Your task to perform on an android device: Go to display settings Image 0: 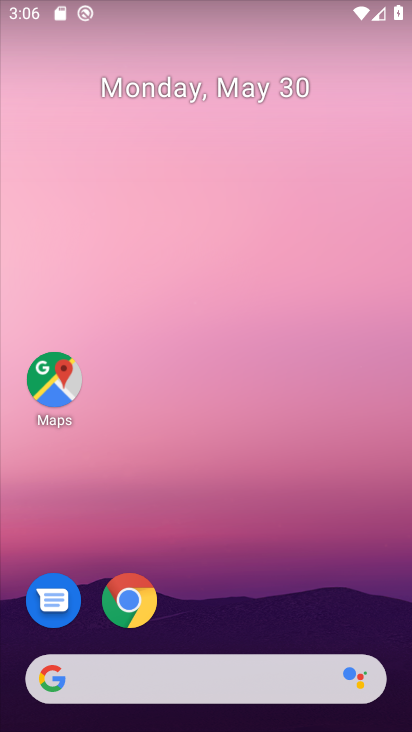
Step 0: drag from (228, 610) to (198, 148)
Your task to perform on an android device: Go to display settings Image 1: 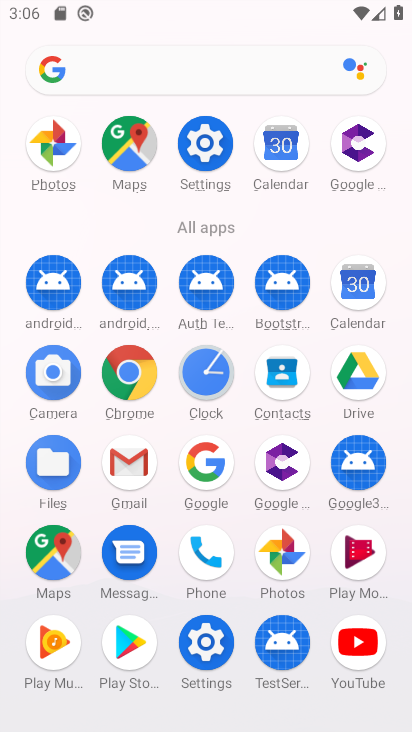
Step 1: click (217, 169)
Your task to perform on an android device: Go to display settings Image 2: 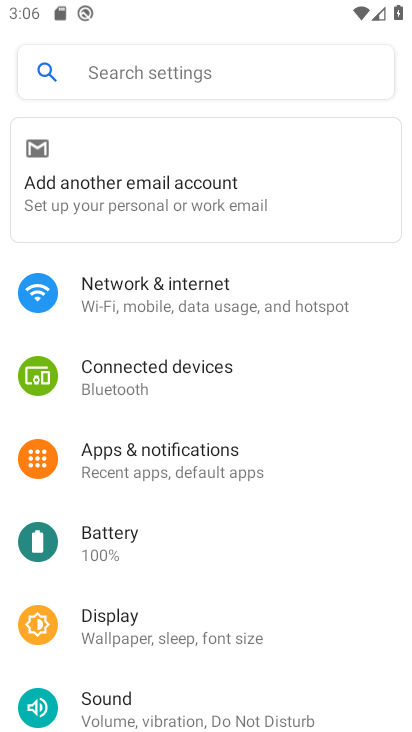
Step 2: click (160, 640)
Your task to perform on an android device: Go to display settings Image 3: 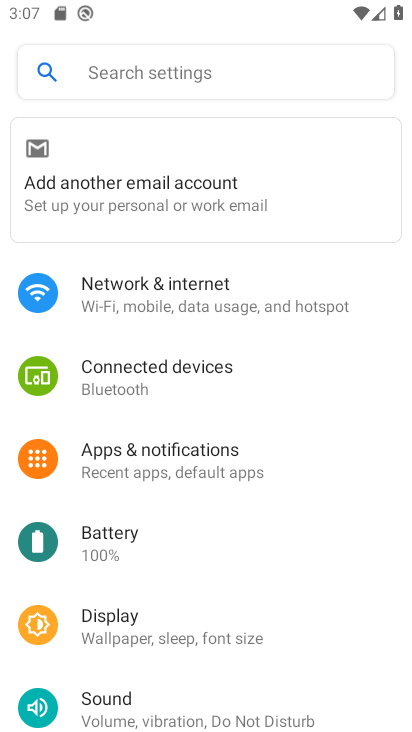
Step 3: click (137, 619)
Your task to perform on an android device: Go to display settings Image 4: 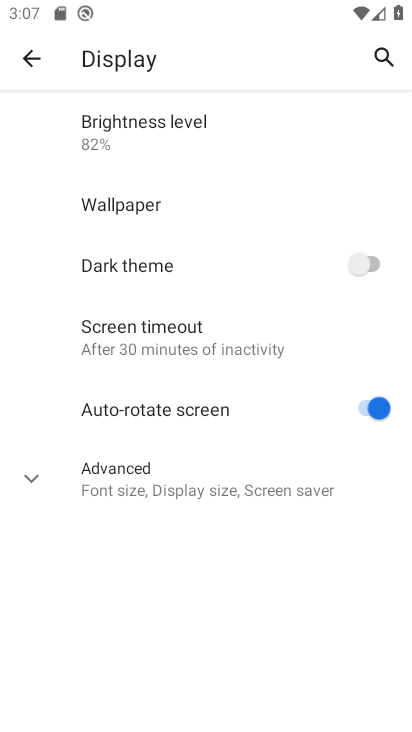
Step 4: task complete